Your task to perform on an android device: change the clock display to digital Image 0: 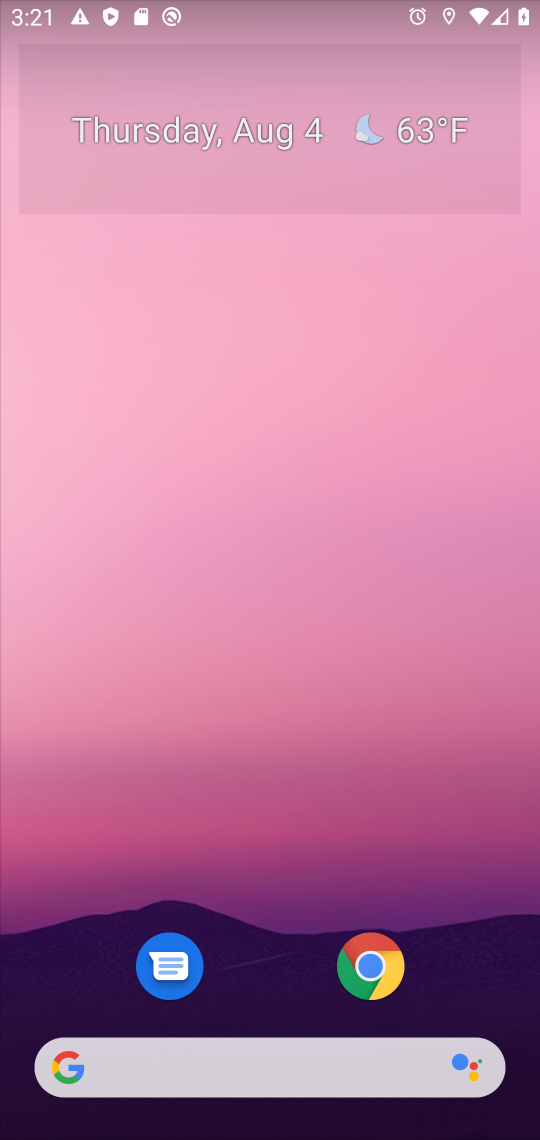
Step 0: press home button
Your task to perform on an android device: change the clock display to digital Image 1: 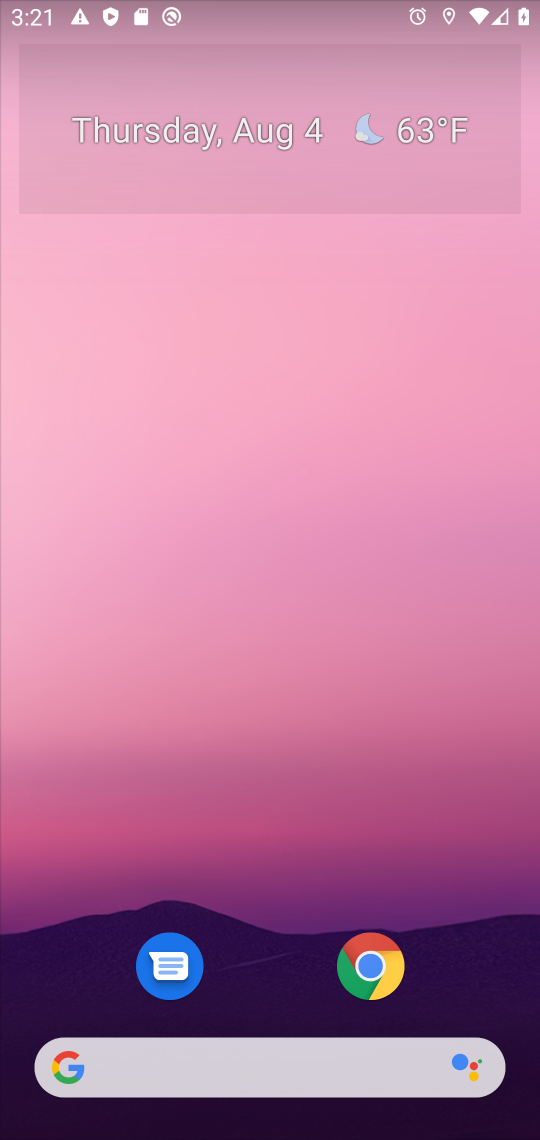
Step 1: drag from (286, 886) to (279, 57)
Your task to perform on an android device: change the clock display to digital Image 2: 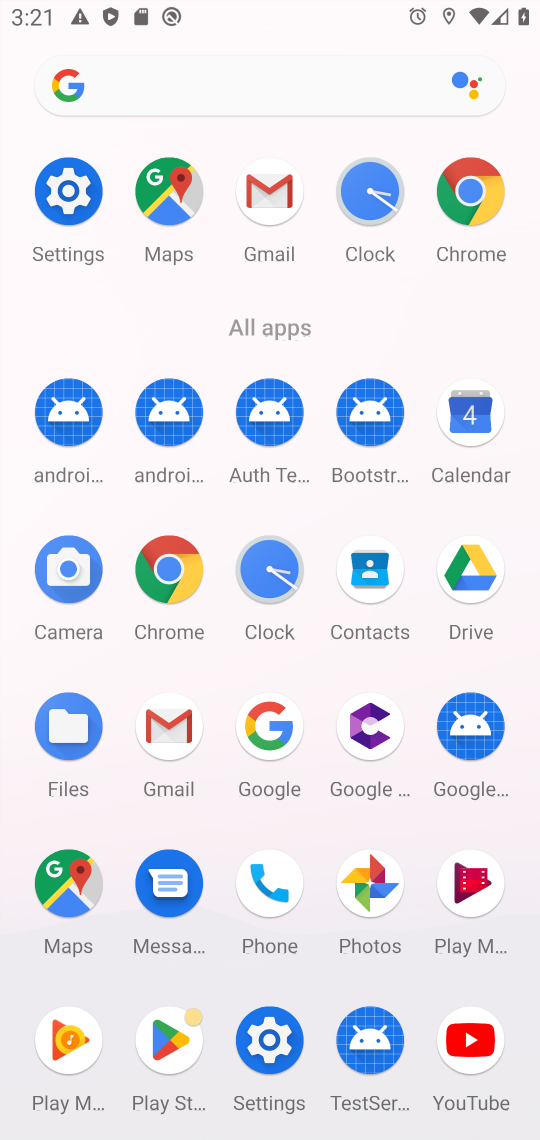
Step 2: click (379, 188)
Your task to perform on an android device: change the clock display to digital Image 3: 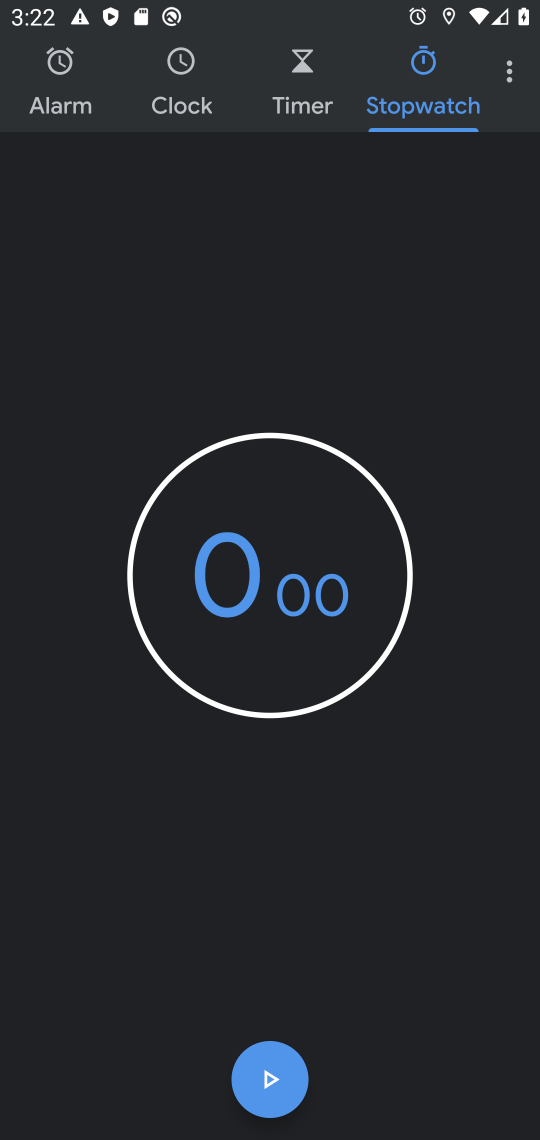
Step 3: click (512, 81)
Your task to perform on an android device: change the clock display to digital Image 4: 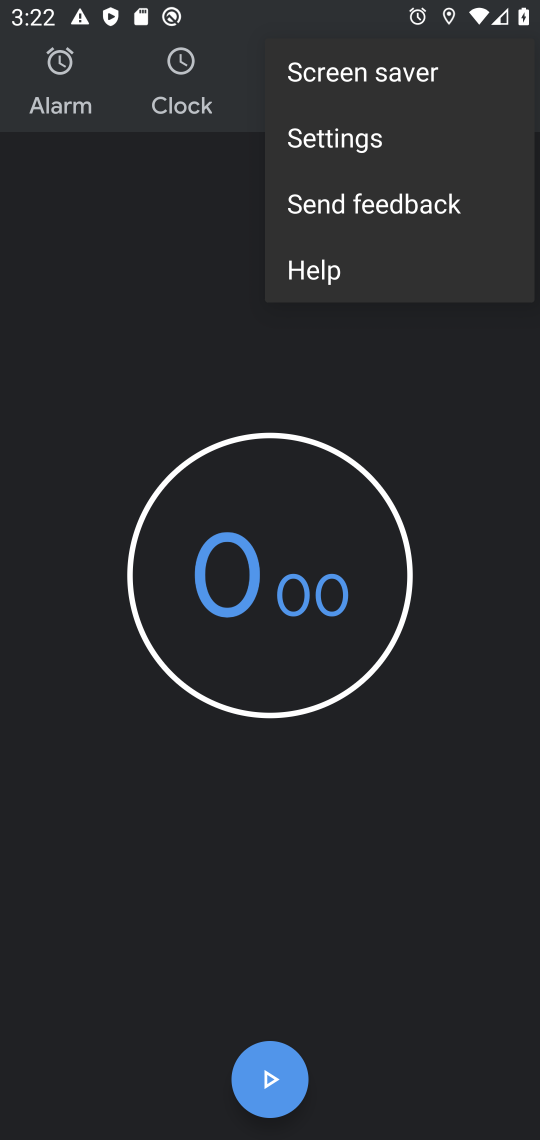
Step 4: click (364, 140)
Your task to perform on an android device: change the clock display to digital Image 5: 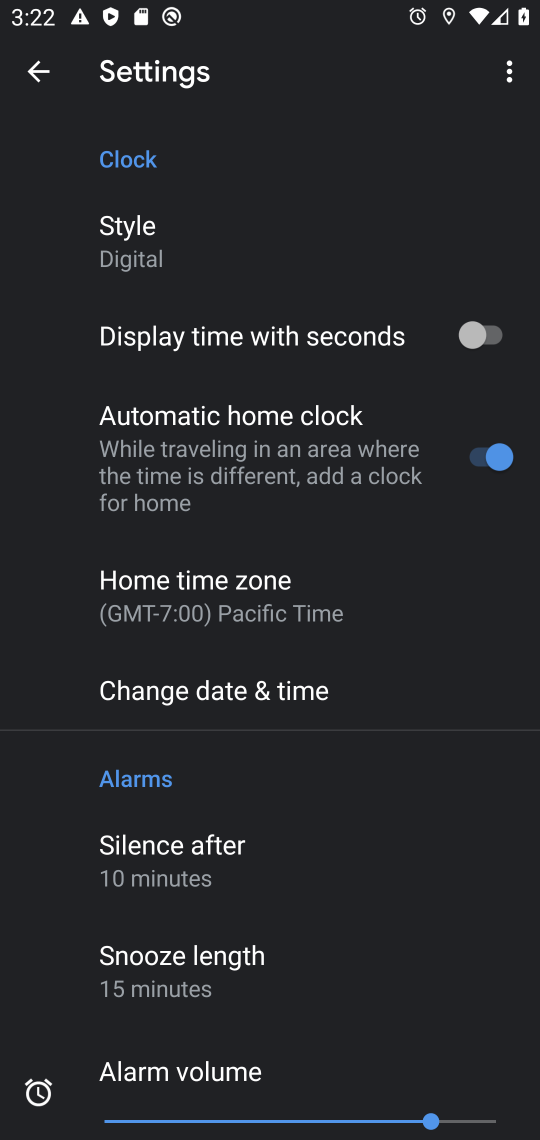
Step 5: click (117, 255)
Your task to perform on an android device: change the clock display to digital Image 6: 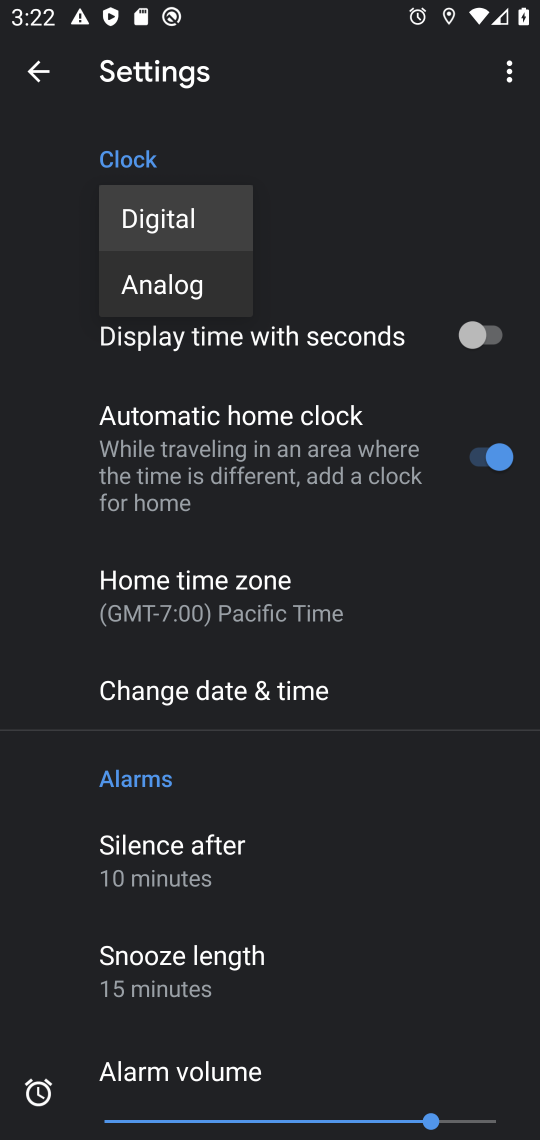
Step 6: task complete